Your task to perform on an android device: Open Wikipedia Image 0: 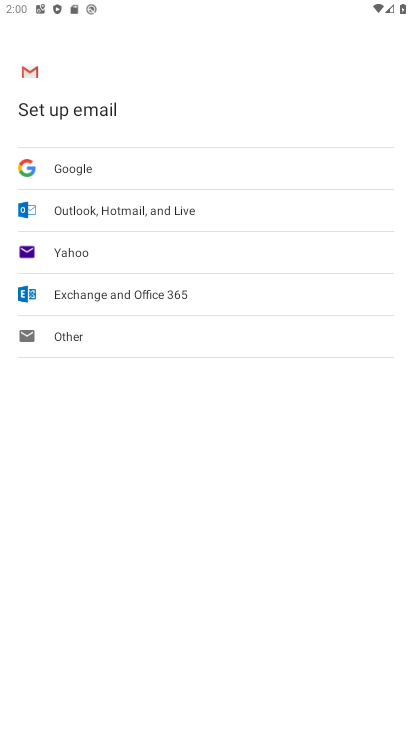
Step 0: press home button
Your task to perform on an android device: Open Wikipedia Image 1: 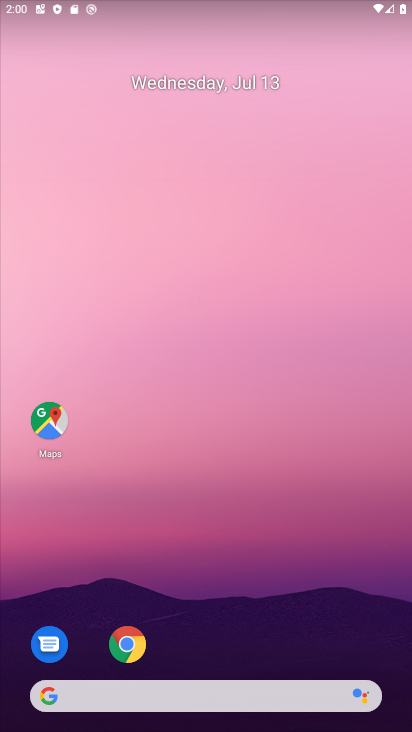
Step 1: drag from (324, 162) to (320, 56)
Your task to perform on an android device: Open Wikipedia Image 2: 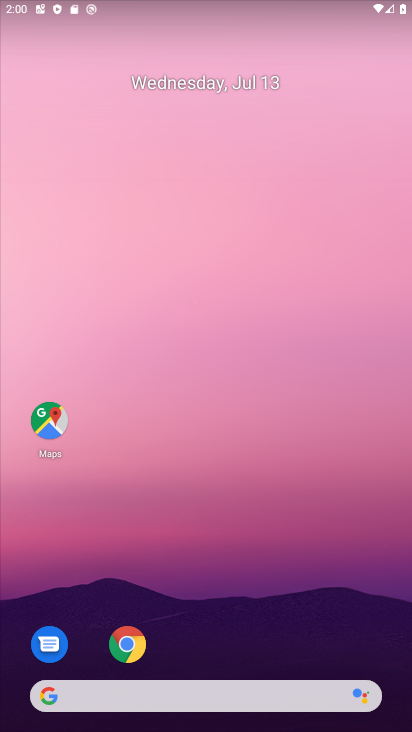
Step 2: drag from (317, 462) to (294, 79)
Your task to perform on an android device: Open Wikipedia Image 3: 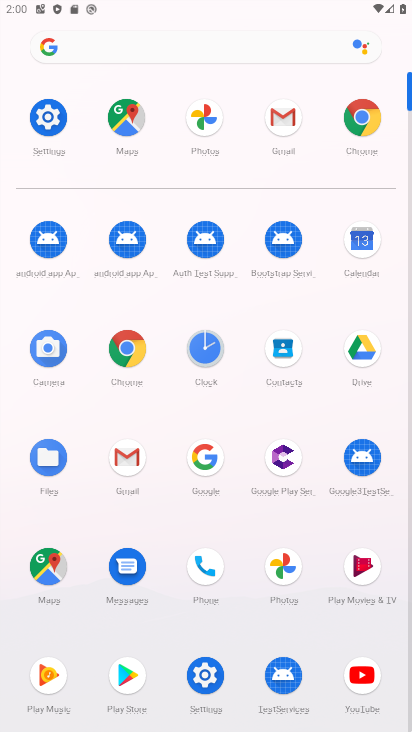
Step 3: click (130, 350)
Your task to perform on an android device: Open Wikipedia Image 4: 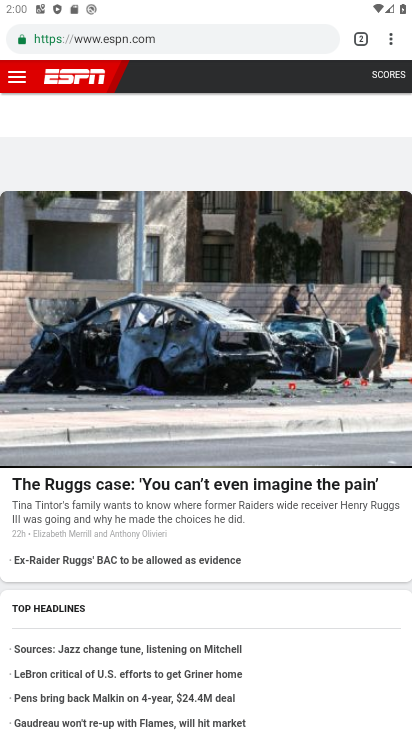
Step 4: click (295, 31)
Your task to perform on an android device: Open Wikipedia Image 5: 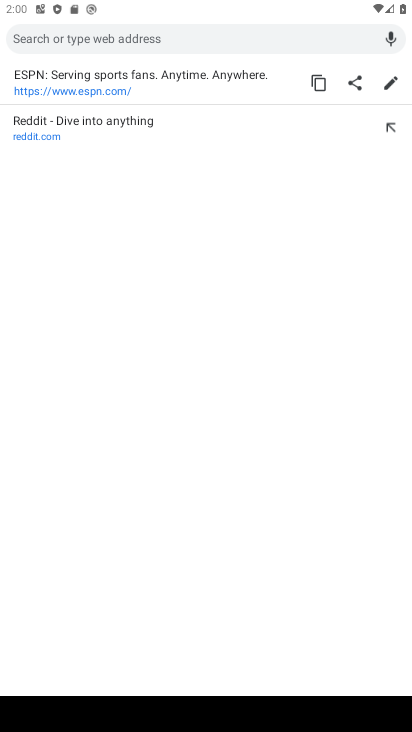
Step 5: type "wikipedia"
Your task to perform on an android device: Open Wikipedia Image 6: 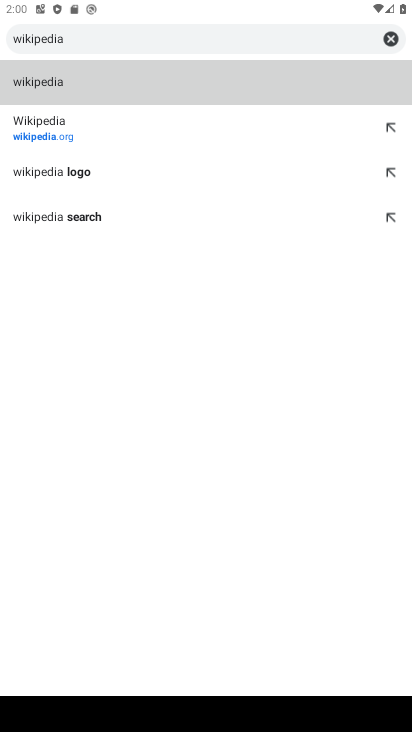
Step 6: click (47, 125)
Your task to perform on an android device: Open Wikipedia Image 7: 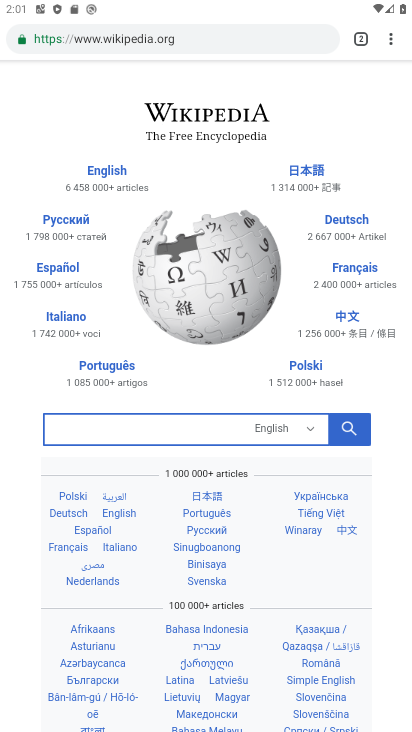
Step 7: task complete